Your task to perform on an android device: Show me productivity apps on the Play Store Image 0: 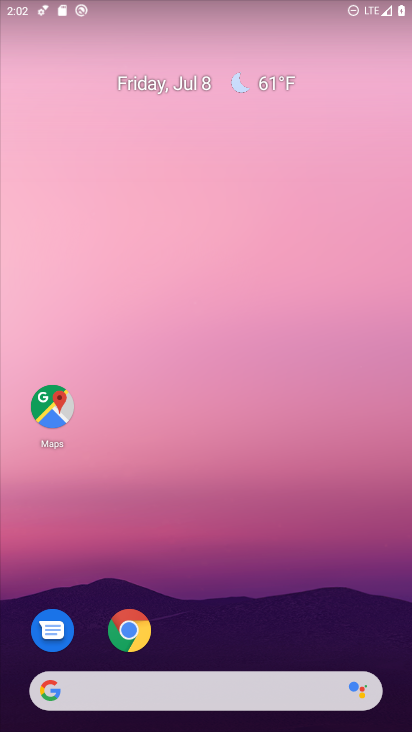
Step 0: drag from (355, 600) to (239, 10)
Your task to perform on an android device: Show me productivity apps on the Play Store Image 1: 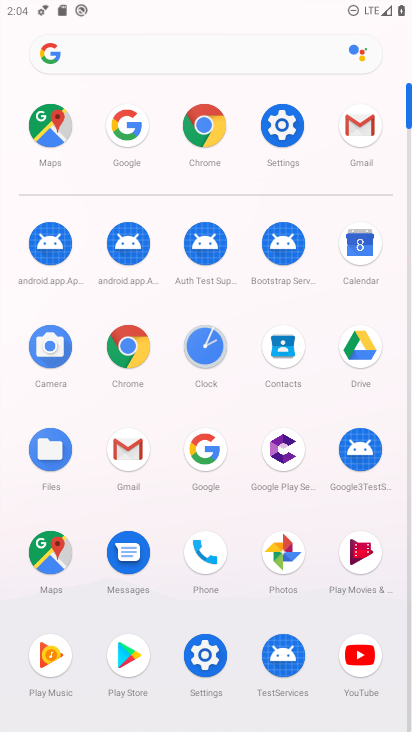
Step 1: click (111, 657)
Your task to perform on an android device: Show me productivity apps on the Play Store Image 2: 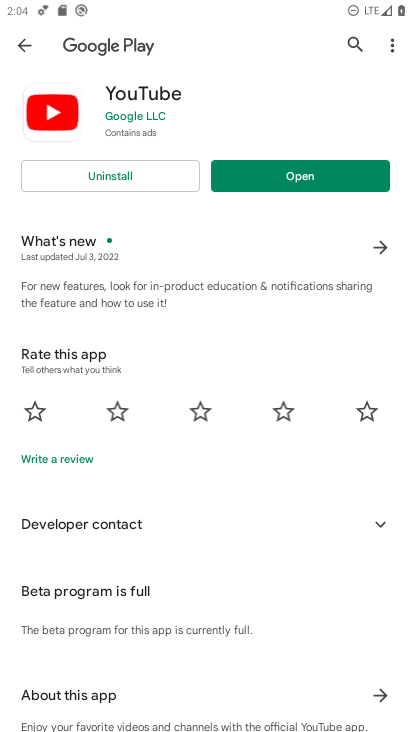
Step 2: press back button
Your task to perform on an android device: Show me productivity apps on the Play Store Image 3: 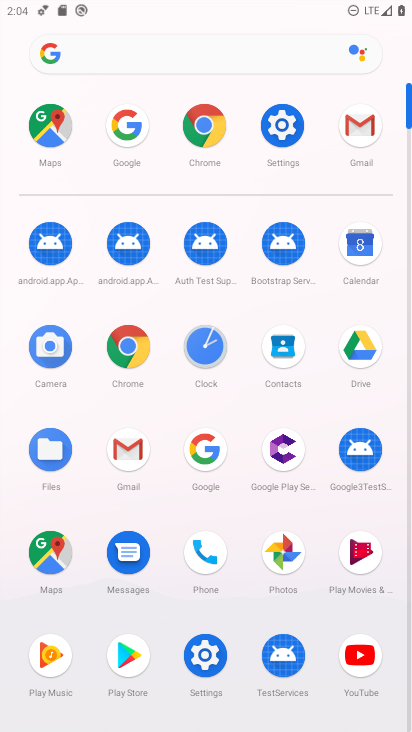
Step 3: click (126, 668)
Your task to perform on an android device: Show me productivity apps on the Play Store Image 4: 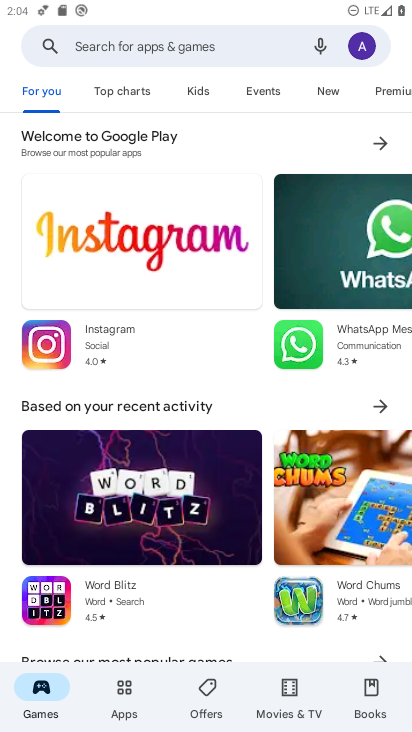
Step 4: task complete